Your task to perform on an android device: turn on improve location accuracy Image 0: 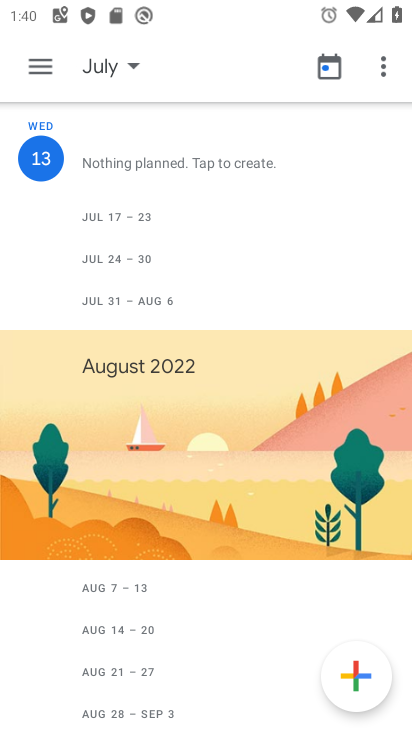
Step 0: press home button
Your task to perform on an android device: turn on improve location accuracy Image 1: 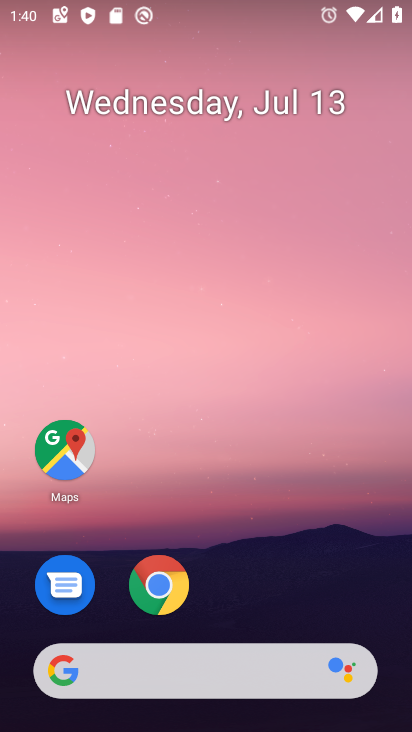
Step 1: drag from (174, 668) to (360, 106)
Your task to perform on an android device: turn on improve location accuracy Image 2: 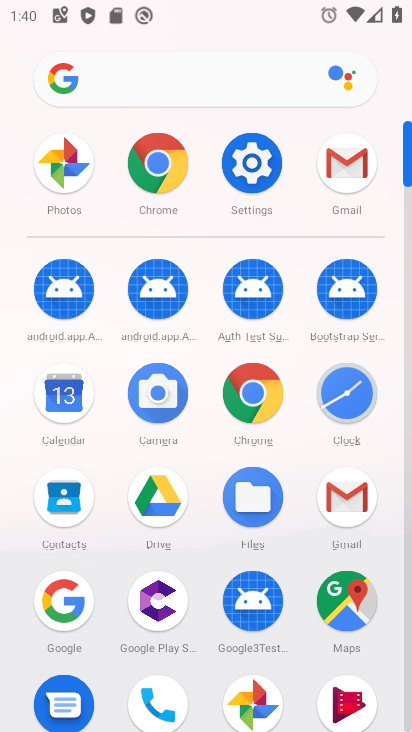
Step 2: click (259, 171)
Your task to perform on an android device: turn on improve location accuracy Image 3: 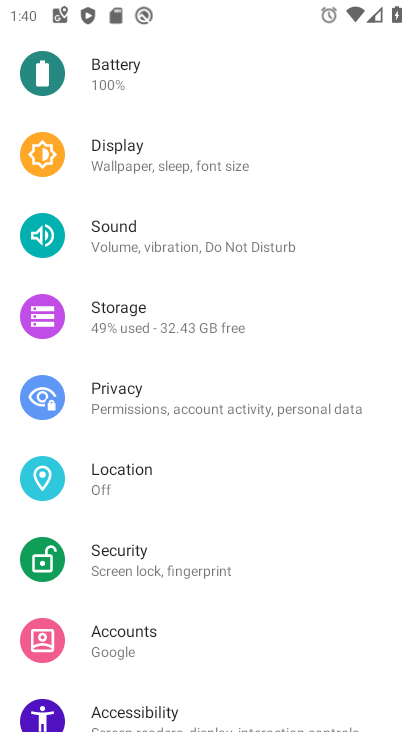
Step 3: click (135, 485)
Your task to perform on an android device: turn on improve location accuracy Image 4: 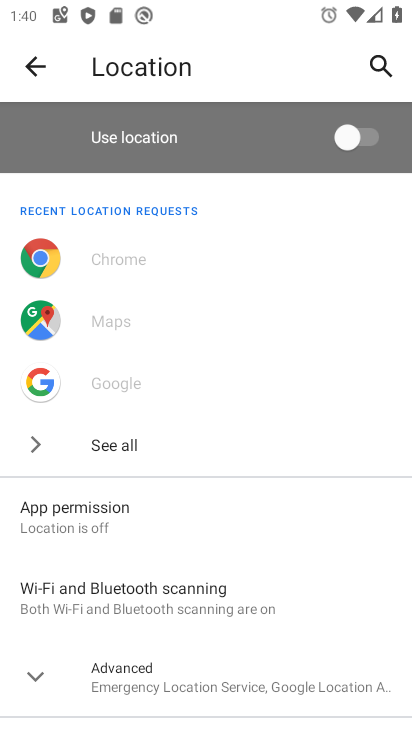
Step 4: click (118, 672)
Your task to perform on an android device: turn on improve location accuracy Image 5: 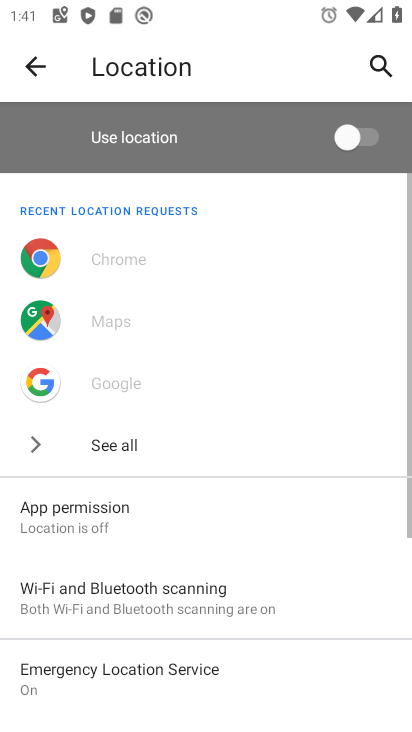
Step 5: drag from (173, 648) to (321, 319)
Your task to perform on an android device: turn on improve location accuracy Image 6: 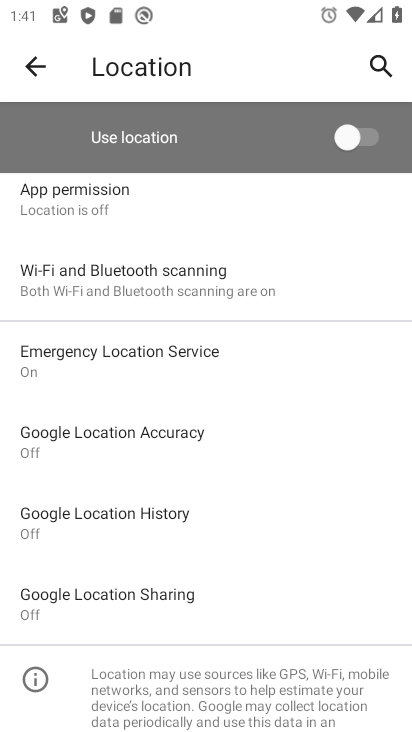
Step 6: click (159, 432)
Your task to perform on an android device: turn on improve location accuracy Image 7: 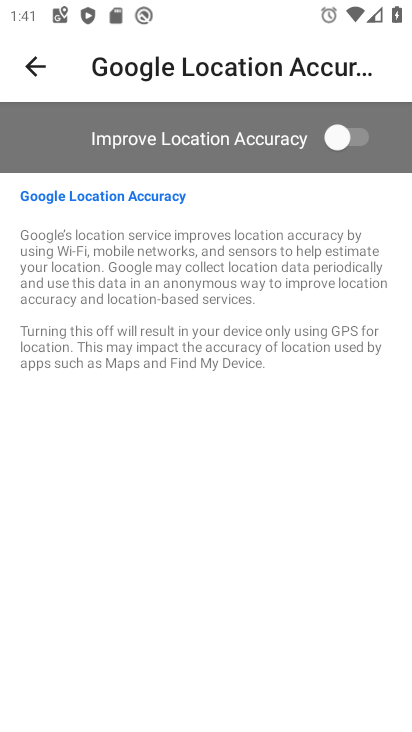
Step 7: click (357, 139)
Your task to perform on an android device: turn on improve location accuracy Image 8: 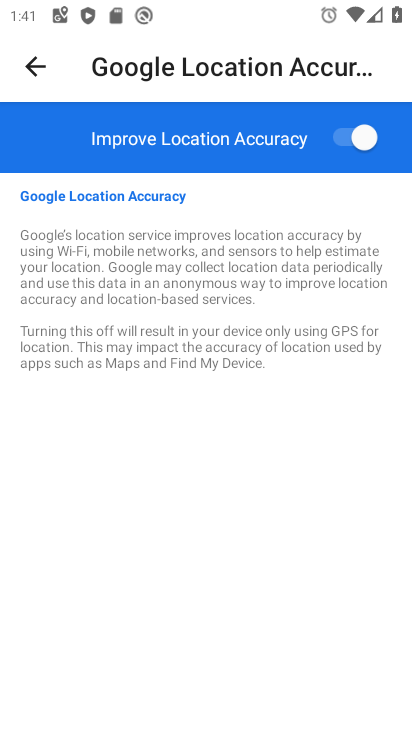
Step 8: task complete